Your task to perform on an android device: Play the last video I watched on Youtube Image 0: 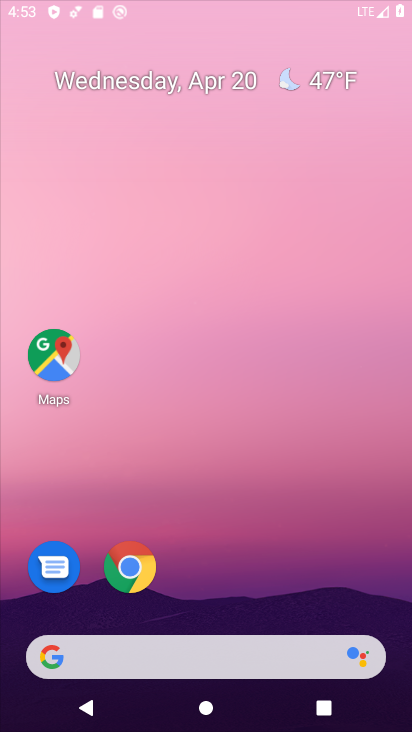
Step 0: click (246, 40)
Your task to perform on an android device: Play the last video I watched on Youtube Image 1: 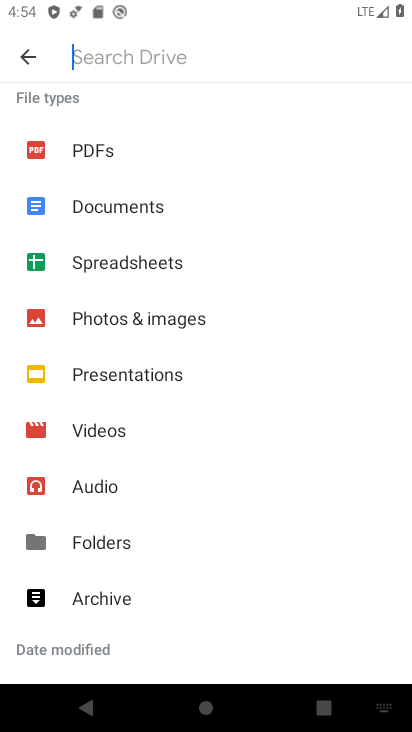
Step 1: press back button
Your task to perform on an android device: Play the last video I watched on Youtube Image 2: 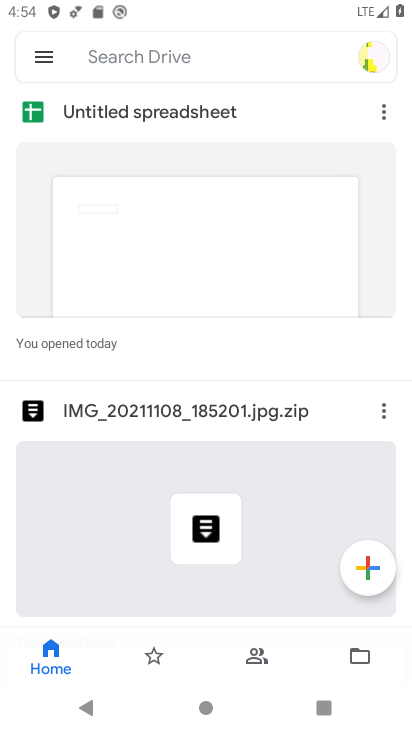
Step 2: press back button
Your task to perform on an android device: Play the last video I watched on Youtube Image 3: 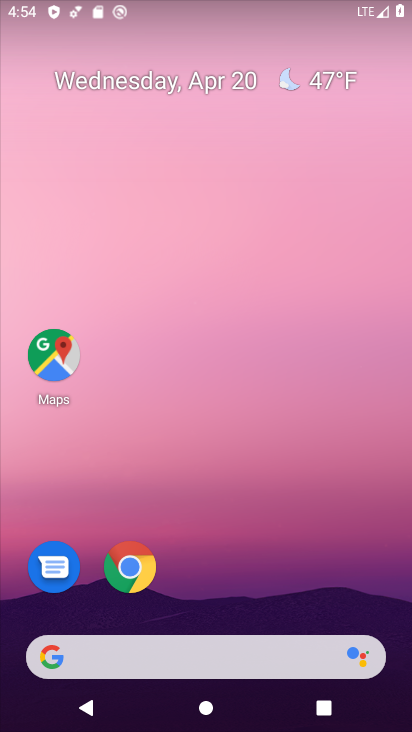
Step 3: drag from (304, 583) to (229, 21)
Your task to perform on an android device: Play the last video I watched on Youtube Image 4: 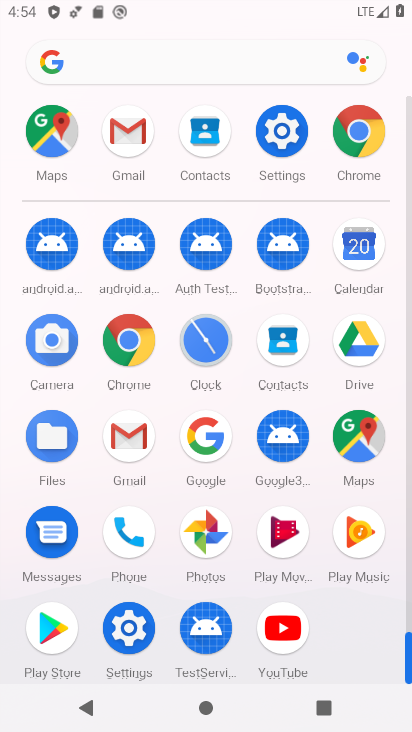
Step 4: click (284, 631)
Your task to perform on an android device: Play the last video I watched on Youtube Image 5: 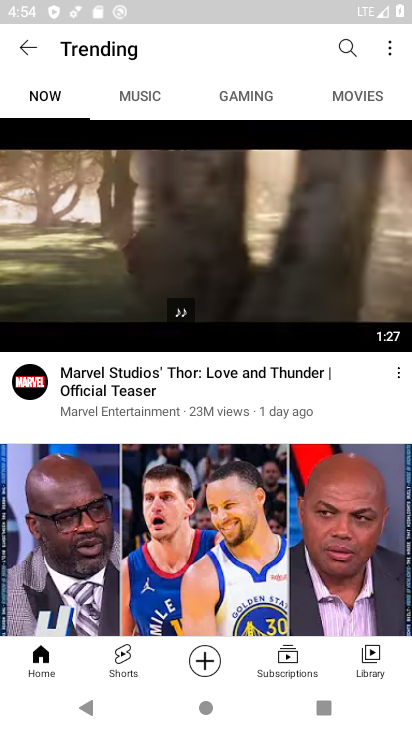
Step 5: click (59, 658)
Your task to perform on an android device: Play the last video I watched on Youtube Image 6: 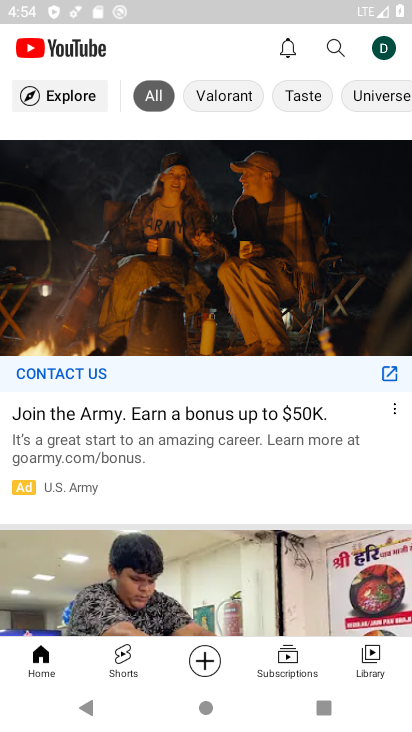
Step 6: click (94, 91)
Your task to perform on an android device: Play the last video I watched on Youtube Image 7: 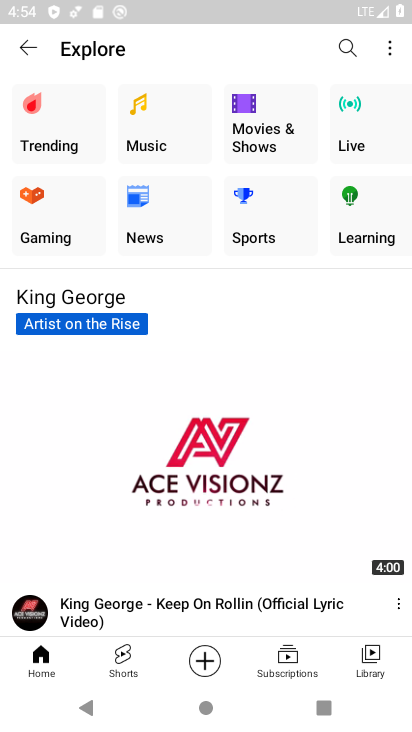
Step 7: click (369, 662)
Your task to perform on an android device: Play the last video I watched on Youtube Image 8: 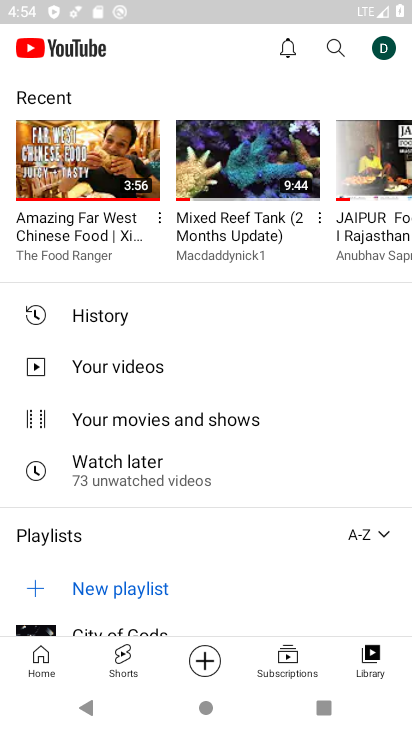
Step 8: click (91, 156)
Your task to perform on an android device: Play the last video I watched on Youtube Image 9: 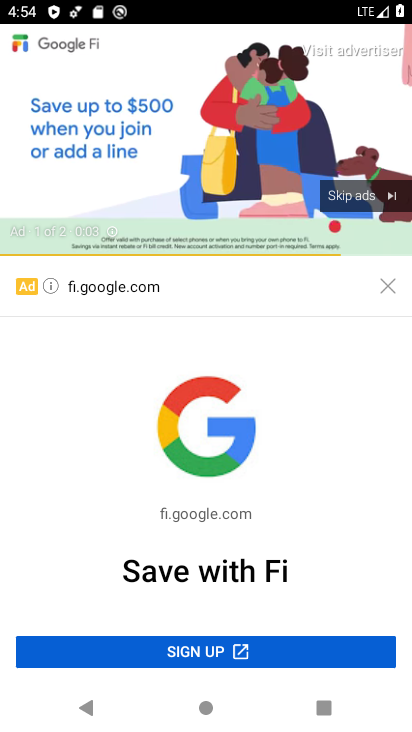
Step 9: click (320, 205)
Your task to perform on an android device: Play the last video I watched on Youtube Image 10: 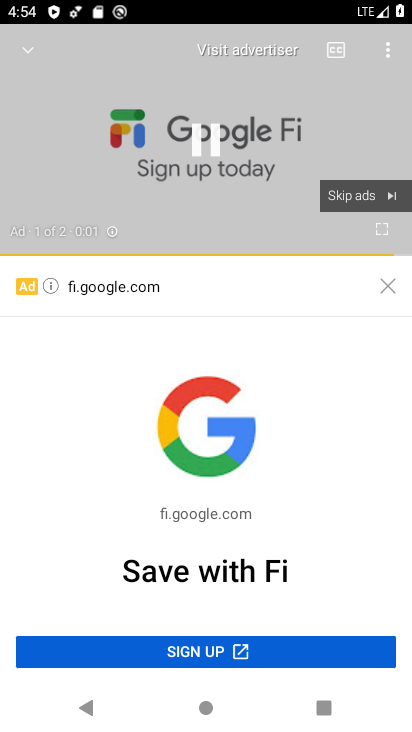
Step 10: click (334, 204)
Your task to perform on an android device: Play the last video I watched on Youtube Image 11: 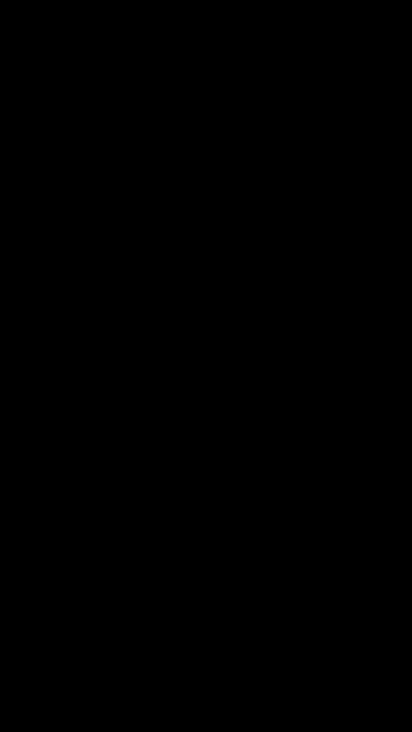
Step 11: task complete